Your task to perform on an android device: turn notification dots off Image 0: 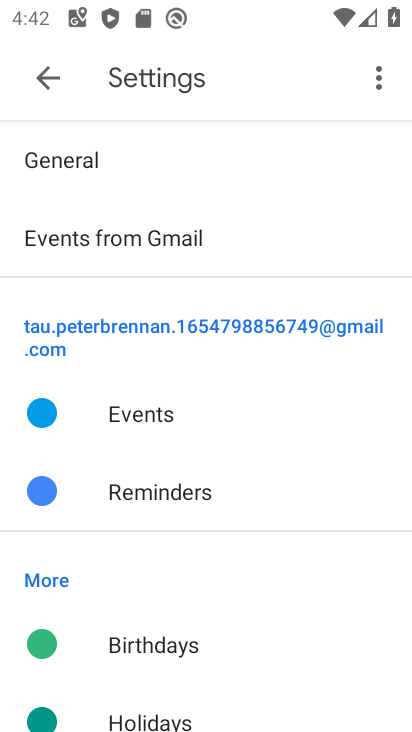
Step 0: press back button
Your task to perform on an android device: turn notification dots off Image 1: 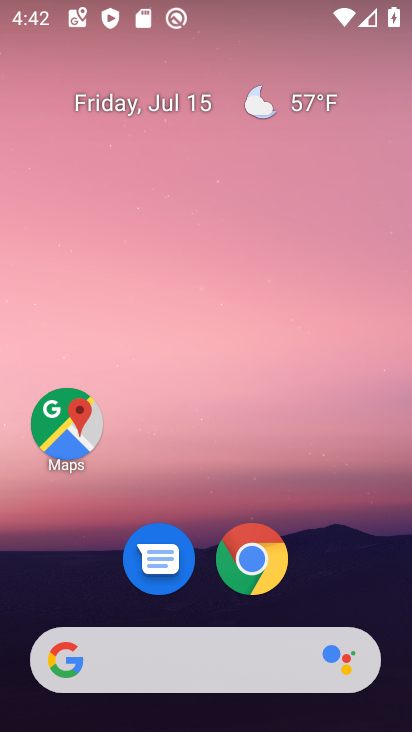
Step 1: drag from (81, 591) to (225, 59)
Your task to perform on an android device: turn notification dots off Image 2: 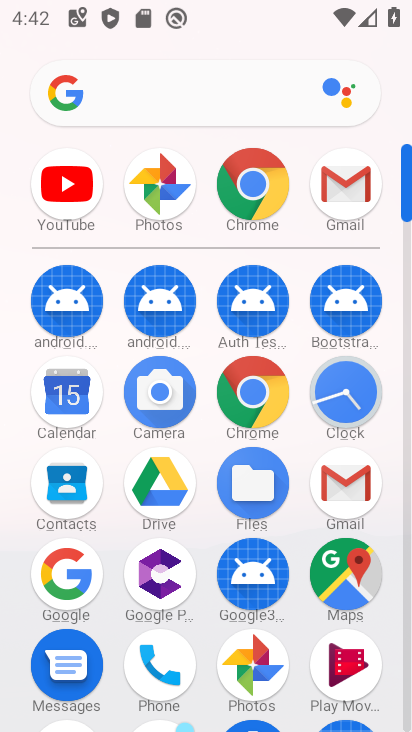
Step 2: click (278, 84)
Your task to perform on an android device: turn notification dots off Image 3: 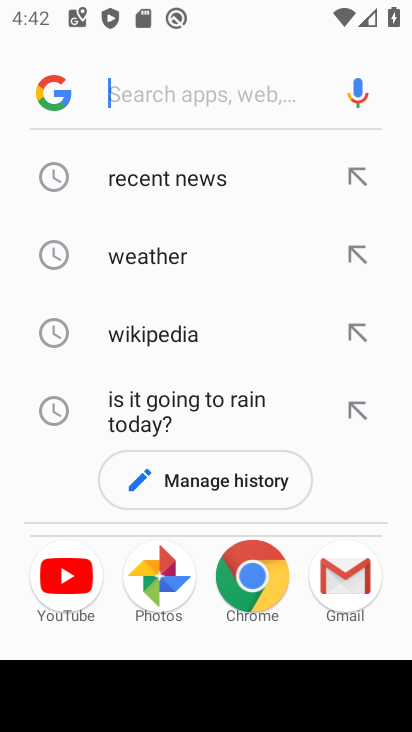
Step 3: press back button
Your task to perform on an android device: turn notification dots off Image 4: 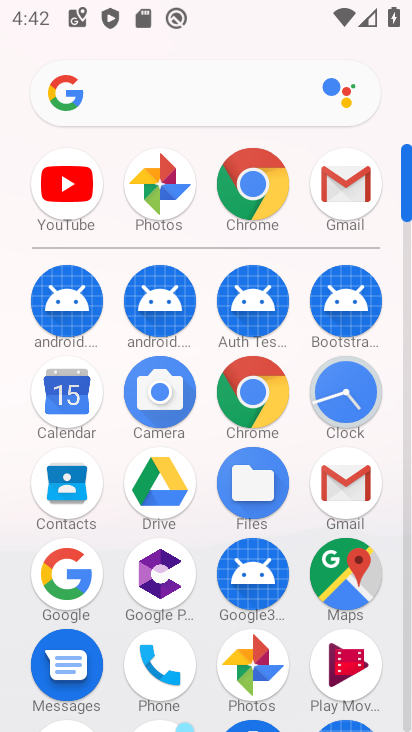
Step 4: drag from (193, 619) to (260, 60)
Your task to perform on an android device: turn notification dots off Image 5: 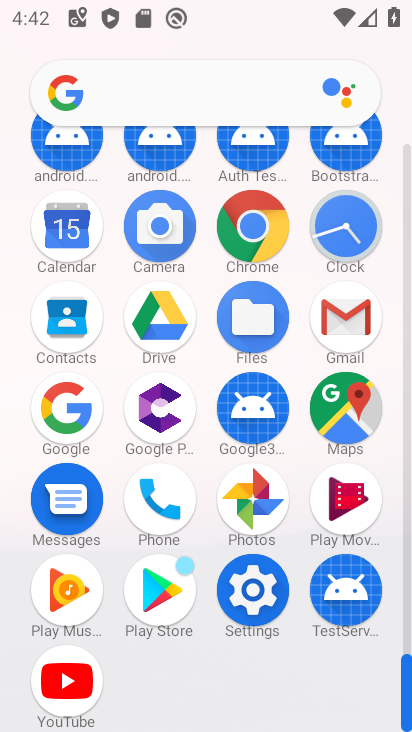
Step 5: click (258, 605)
Your task to perform on an android device: turn notification dots off Image 6: 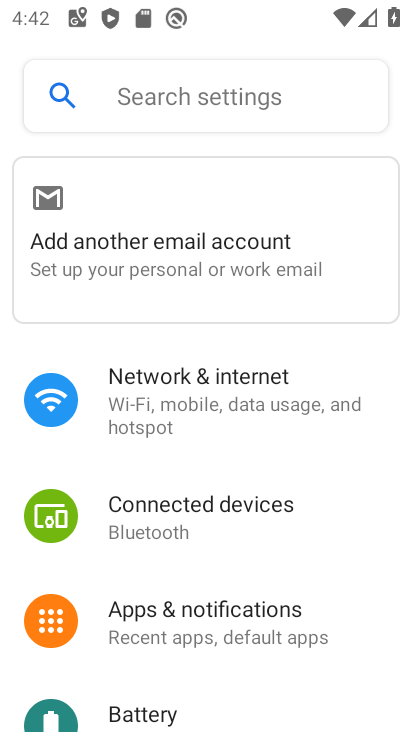
Step 6: click (201, 608)
Your task to perform on an android device: turn notification dots off Image 7: 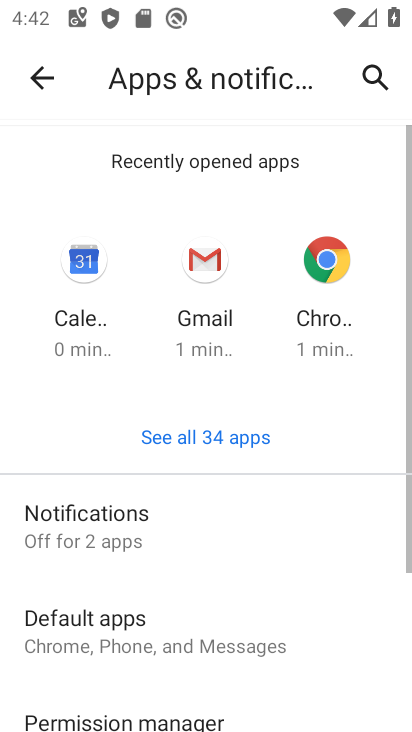
Step 7: click (119, 508)
Your task to perform on an android device: turn notification dots off Image 8: 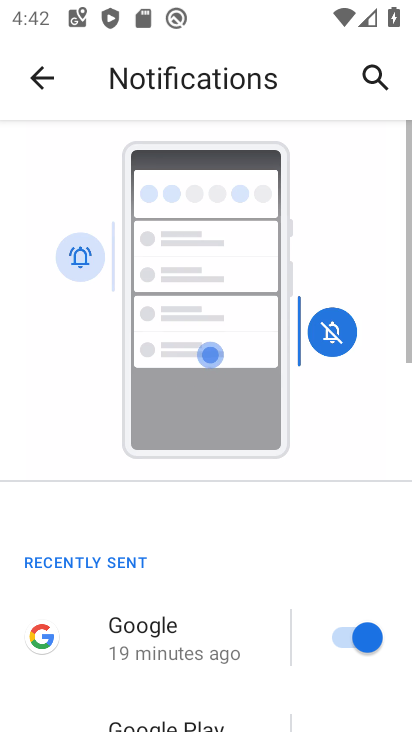
Step 8: drag from (200, 668) to (264, 135)
Your task to perform on an android device: turn notification dots off Image 9: 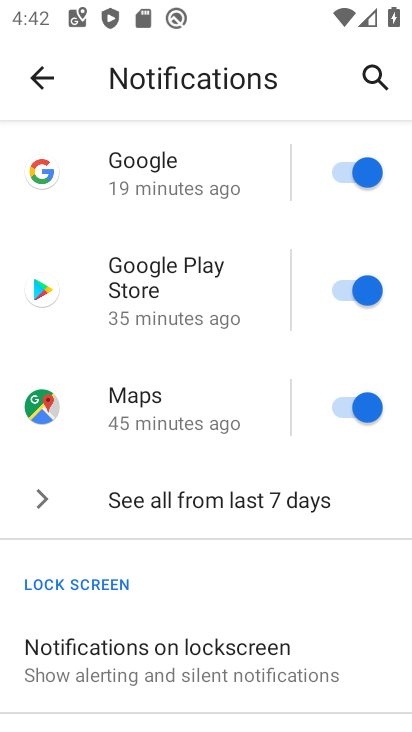
Step 9: drag from (238, 480) to (306, 34)
Your task to perform on an android device: turn notification dots off Image 10: 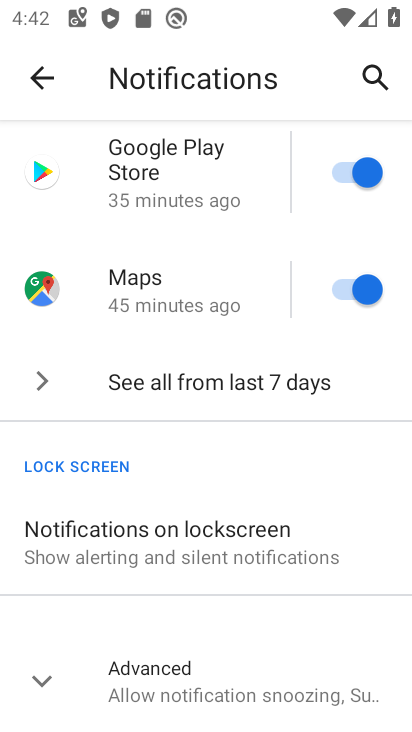
Step 10: click (194, 694)
Your task to perform on an android device: turn notification dots off Image 11: 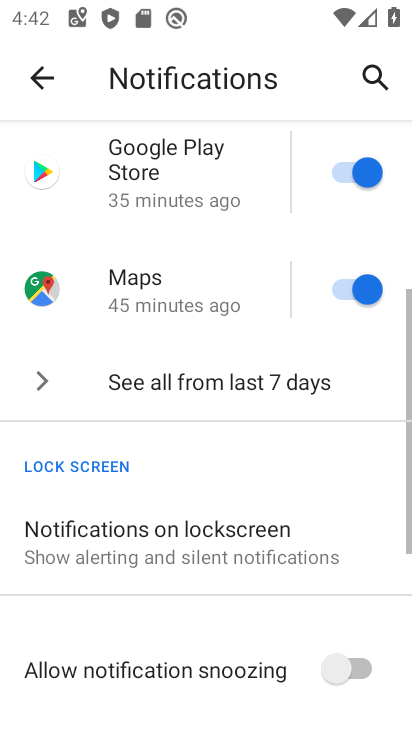
Step 11: drag from (251, 236) to (274, 103)
Your task to perform on an android device: turn notification dots off Image 12: 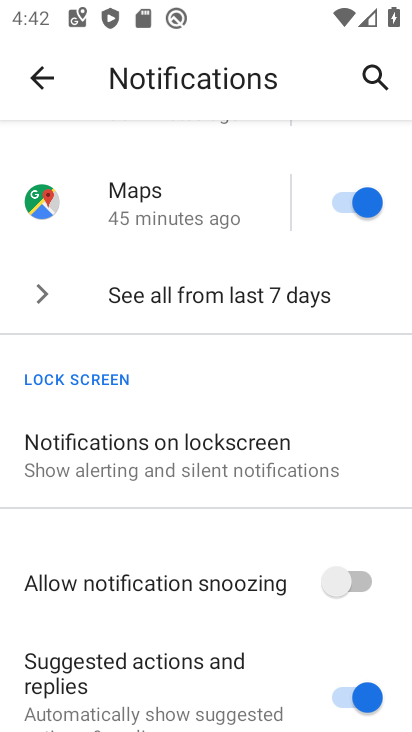
Step 12: drag from (202, 570) to (272, 43)
Your task to perform on an android device: turn notification dots off Image 13: 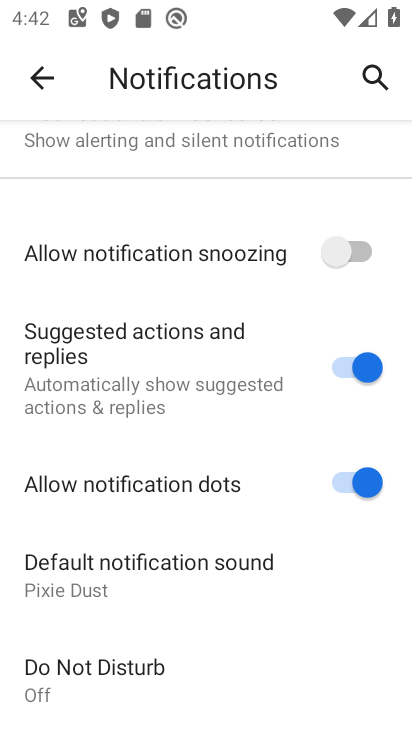
Step 13: click (356, 477)
Your task to perform on an android device: turn notification dots off Image 14: 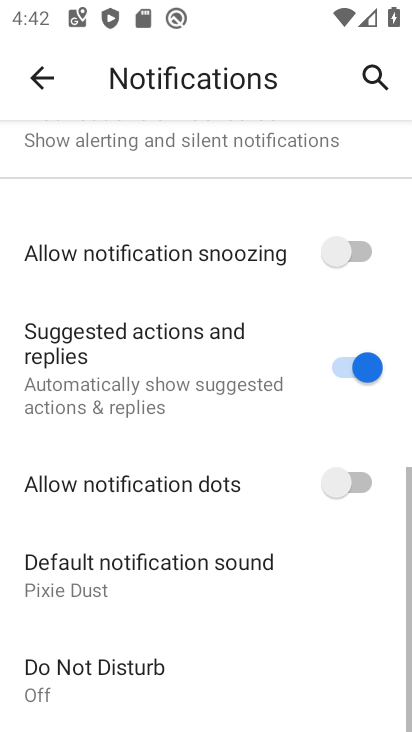
Step 14: task complete